Your task to perform on an android device: turn on wifi Image 0: 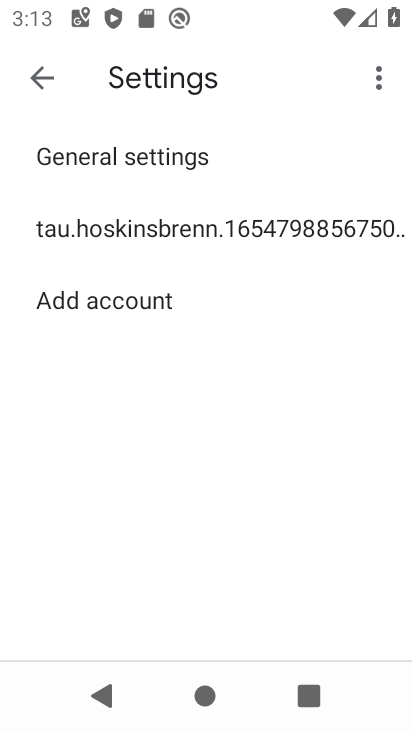
Step 0: press back button
Your task to perform on an android device: turn on wifi Image 1: 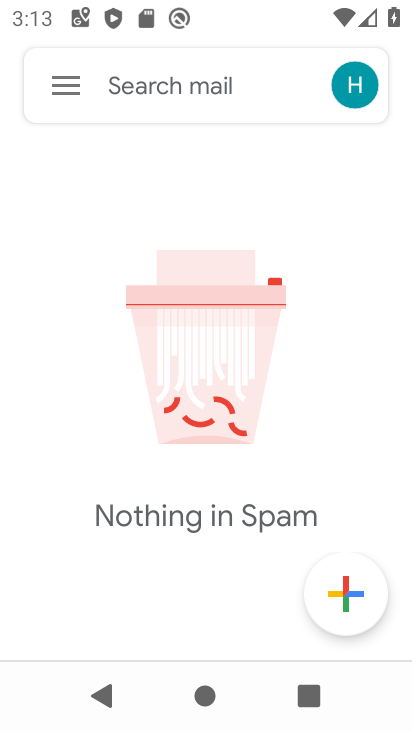
Step 1: task complete